Your task to perform on an android device: Open ESPN.com Image 0: 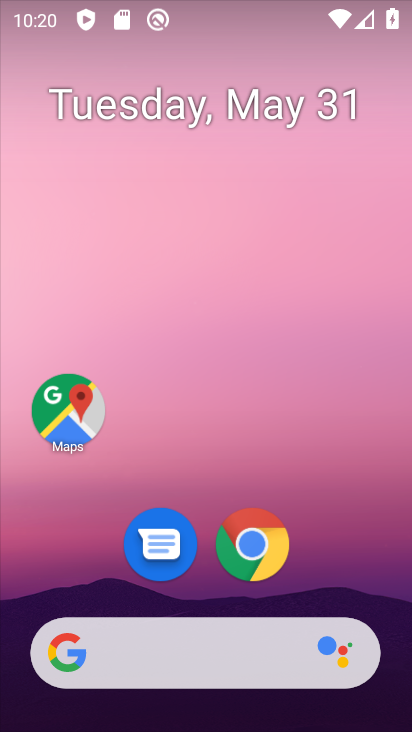
Step 0: click (233, 555)
Your task to perform on an android device: Open ESPN.com Image 1: 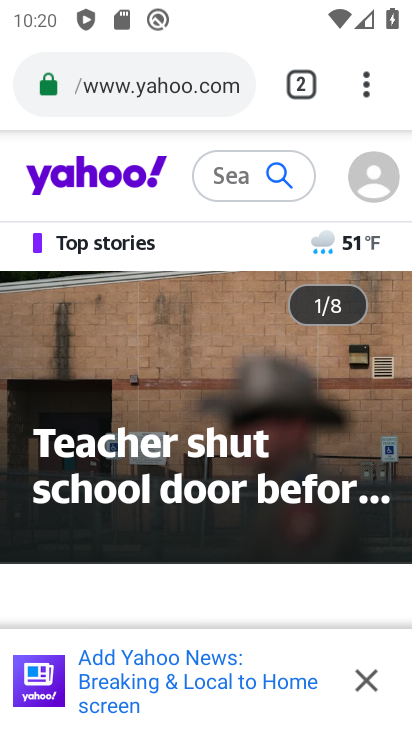
Step 1: click (295, 85)
Your task to perform on an android device: Open ESPN.com Image 2: 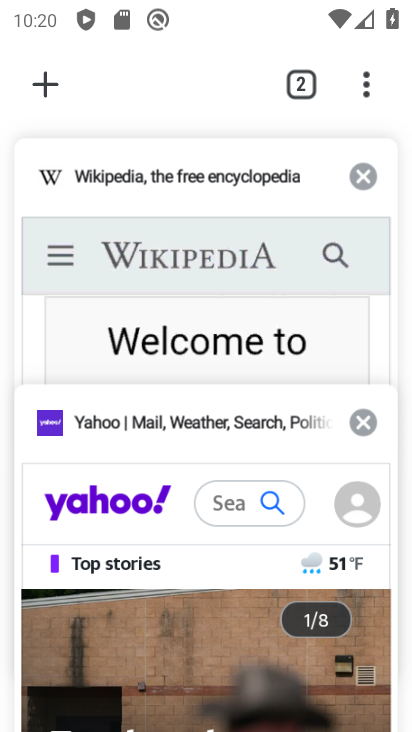
Step 2: click (40, 84)
Your task to perform on an android device: Open ESPN.com Image 3: 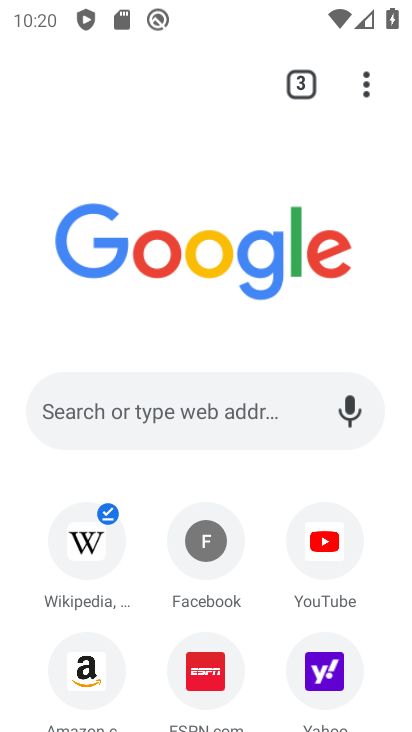
Step 3: click (213, 668)
Your task to perform on an android device: Open ESPN.com Image 4: 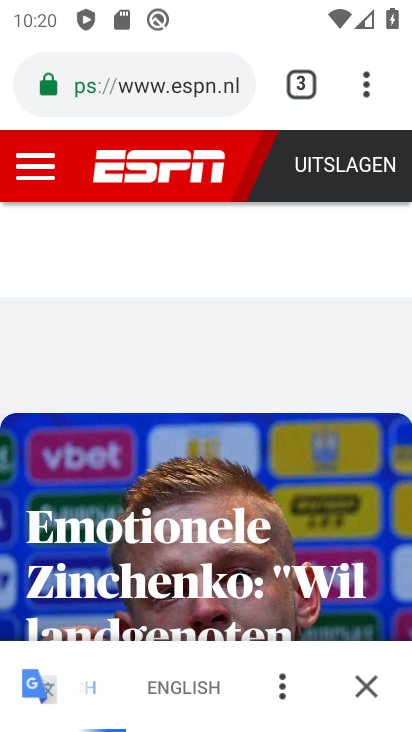
Step 4: task complete